Your task to perform on an android device: allow notifications from all sites in the chrome app Image 0: 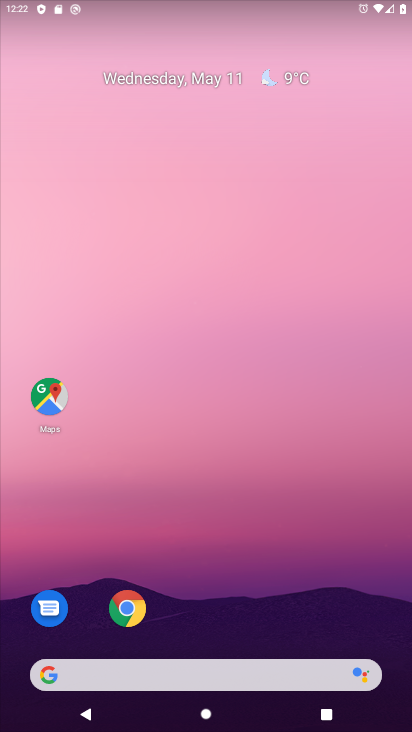
Step 0: drag from (247, 476) to (246, 303)
Your task to perform on an android device: allow notifications from all sites in the chrome app Image 1: 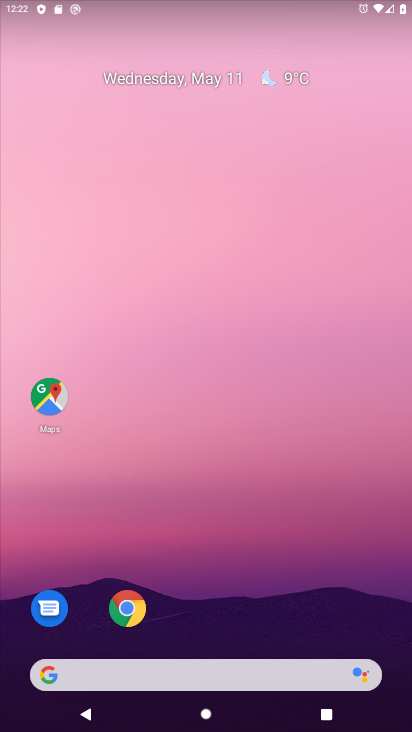
Step 1: drag from (227, 680) to (223, 529)
Your task to perform on an android device: allow notifications from all sites in the chrome app Image 2: 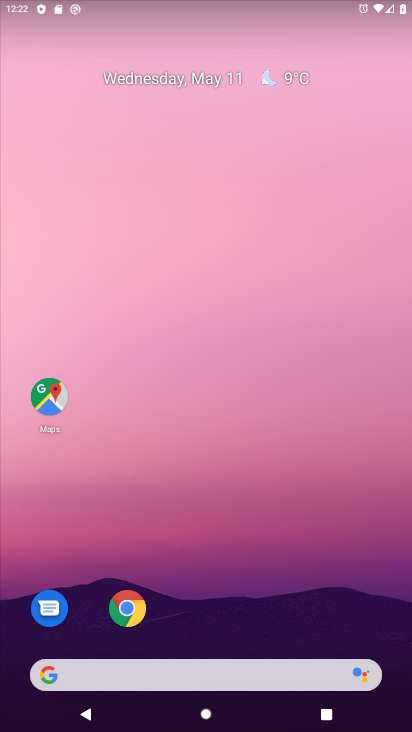
Step 2: drag from (235, 607) to (266, 267)
Your task to perform on an android device: allow notifications from all sites in the chrome app Image 3: 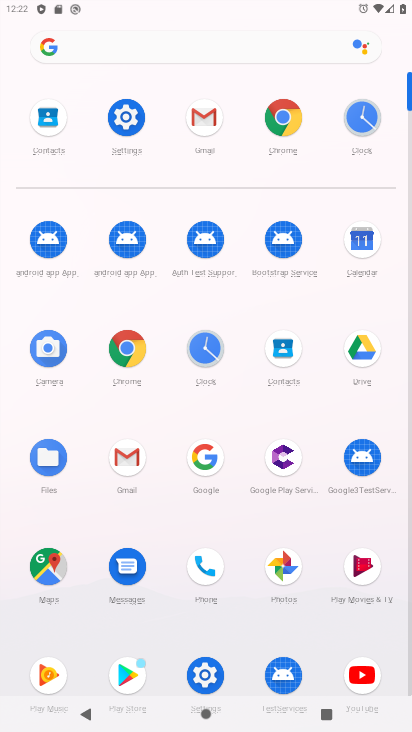
Step 3: click (278, 134)
Your task to perform on an android device: allow notifications from all sites in the chrome app Image 4: 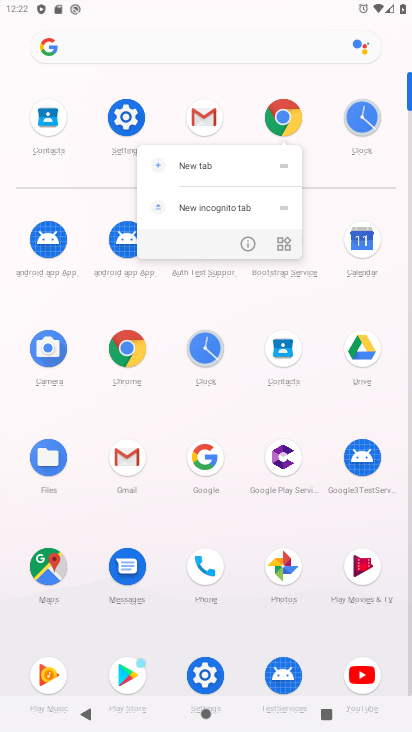
Step 4: click (278, 134)
Your task to perform on an android device: allow notifications from all sites in the chrome app Image 5: 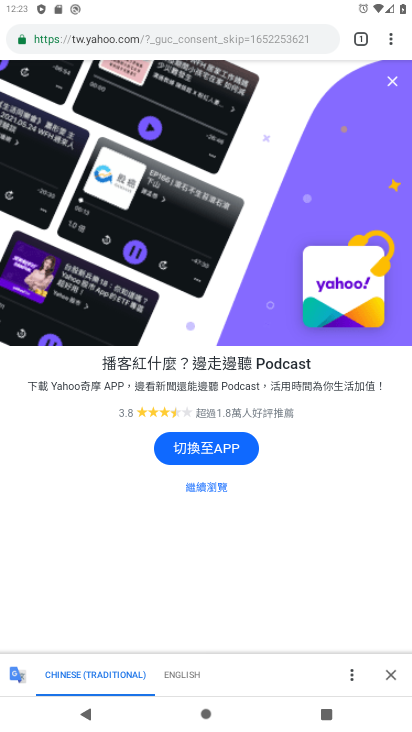
Step 5: click (394, 41)
Your task to perform on an android device: allow notifications from all sites in the chrome app Image 6: 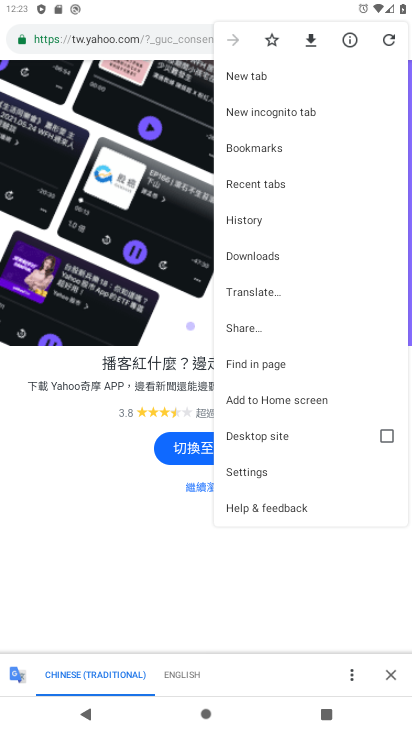
Step 6: click (243, 471)
Your task to perform on an android device: allow notifications from all sites in the chrome app Image 7: 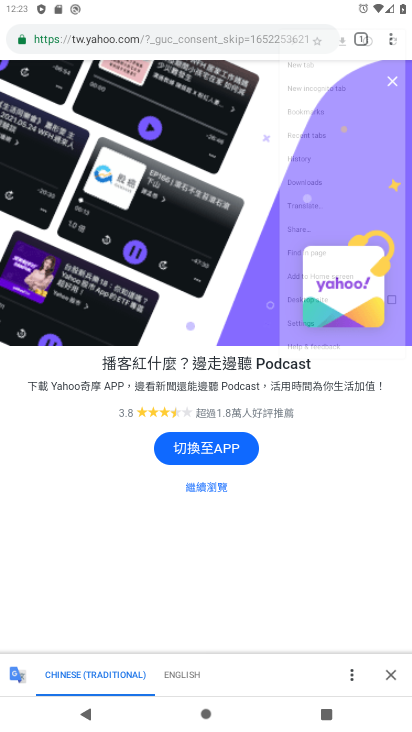
Step 7: click (243, 471)
Your task to perform on an android device: allow notifications from all sites in the chrome app Image 8: 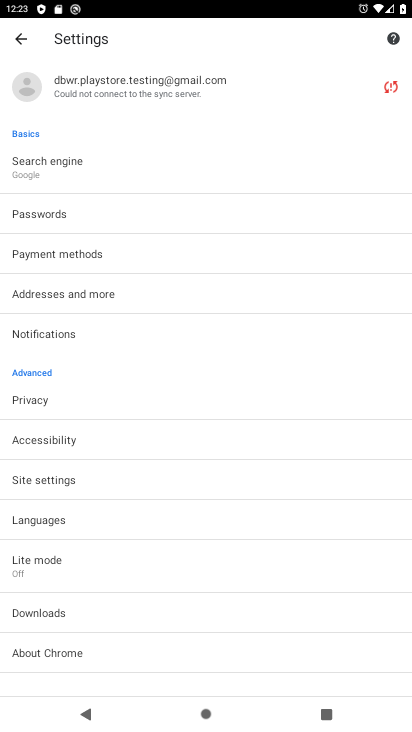
Step 8: click (86, 328)
Your task to perform on an android device: allow notifications from all sites in the chrome app Image 9: 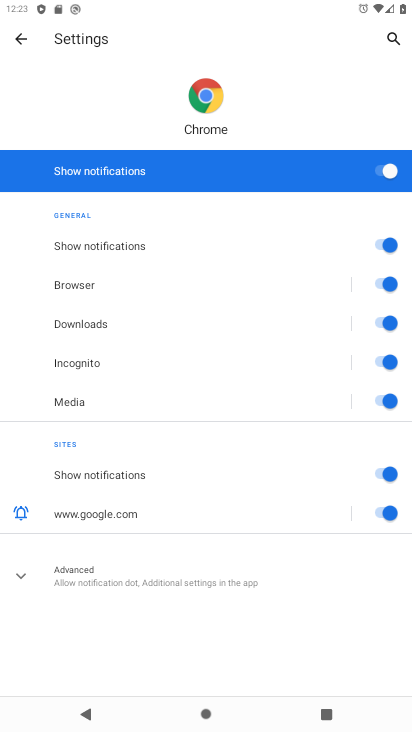
Step 9: task complete